Your task to perform on an android device: toggle show notifications on the lock screen Image 0: 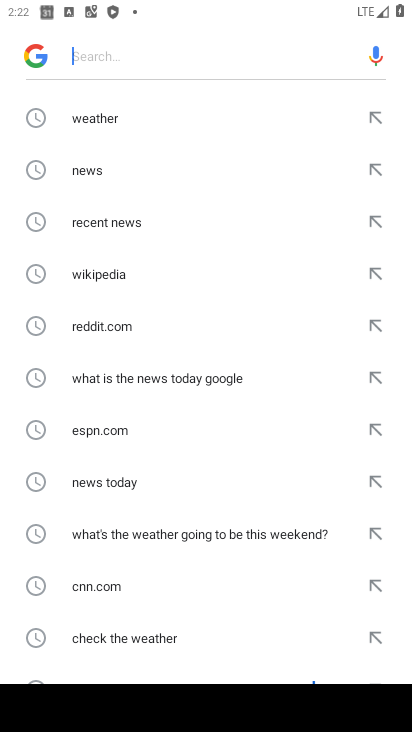
Step 0: press home button
Your task to perform on an android device: toggle show notifications on the lock screen Image 1: 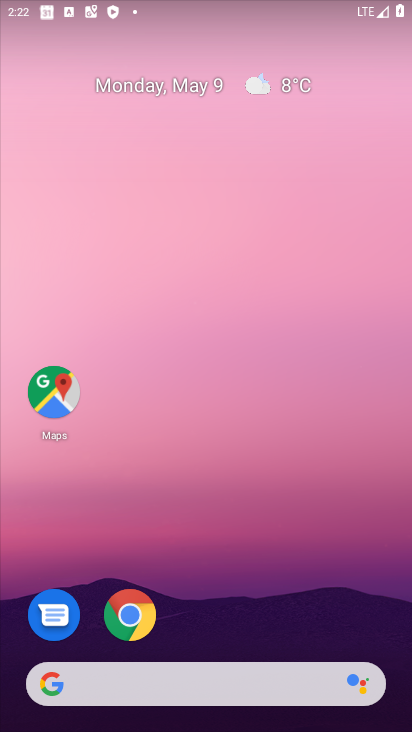
Step 1: drag from (372, 633) to (300, 55)
Your task to perform on an android device: toggle show notifications on the lock screen Image 2: 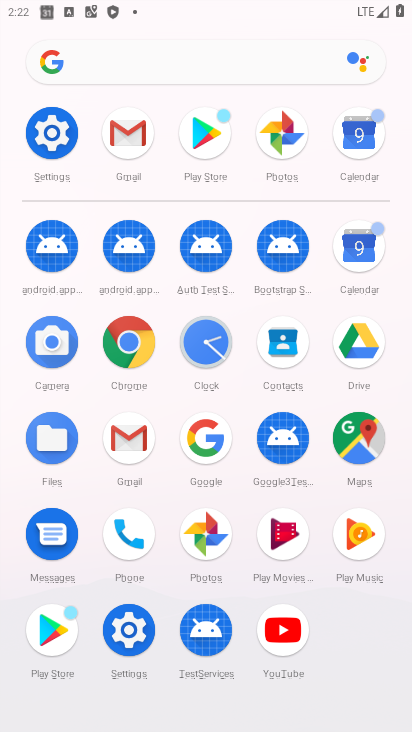
Step 2: click (123, 626)
Your task to perform on an android device: toggle show notifications on the lock screen Image 3: 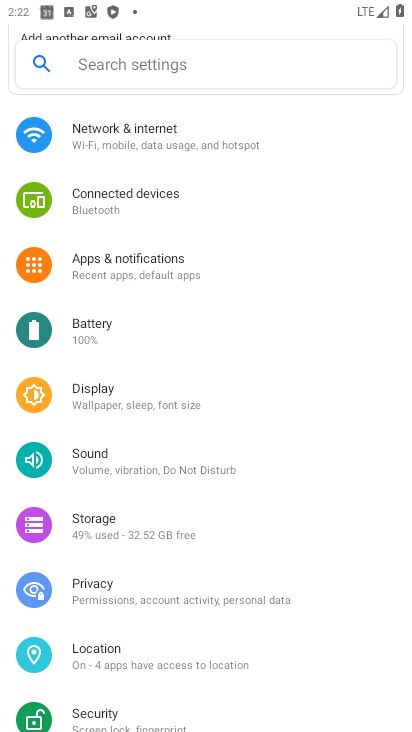
Step 3: click (126, 250)
Your task to perform on an android device: toggle show notifications on the lock screen Image 4: 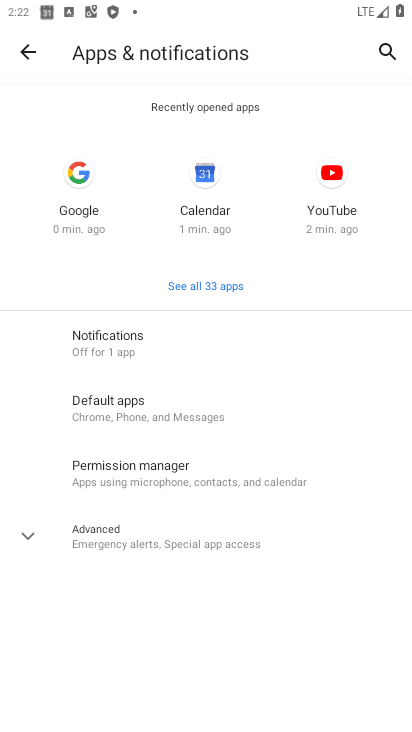
Step 4: click (107, 348)
Your task to perform on an android device: toggle show notifications on the lock screen Image 5: 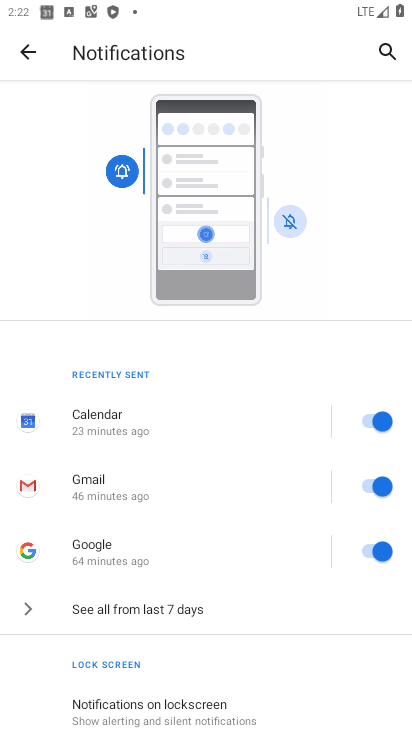
Step 5: drag from (262, 677) to (252, 281)
Your task to perform on an android device: toggle show notifications on the lock screen Image 6: 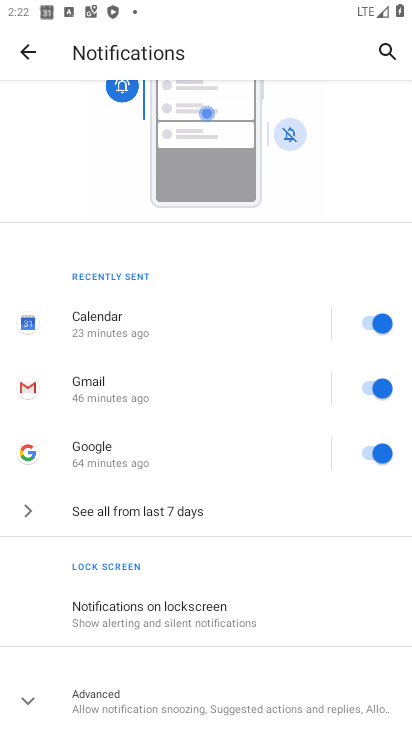
Step 6: click (104, 608)
Your task to perform on an android device: toggle show notifications on the lock screen Image 7: 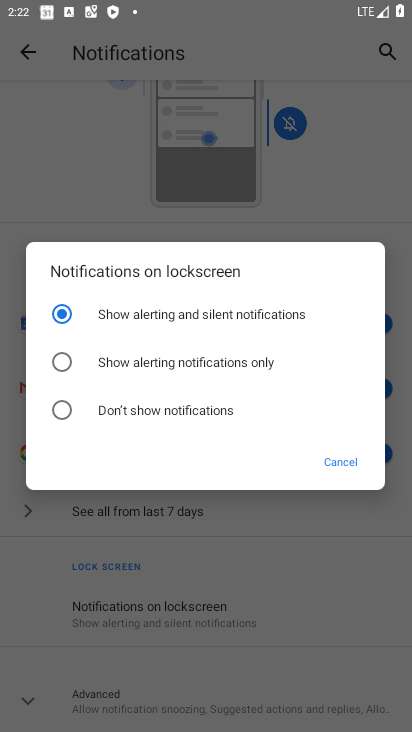
Step 7: click (69, 367)
Your task to perform on an android device: toggle show notifications on the lock screen Image 8: 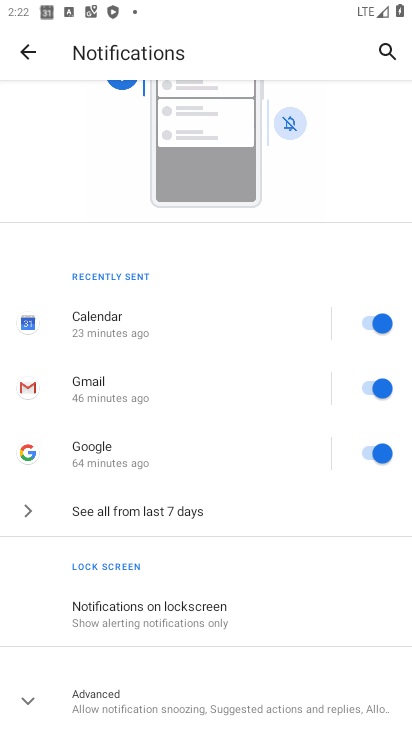
Step 8: task complete